Your task to perform on an android device: check google app version Image 0: 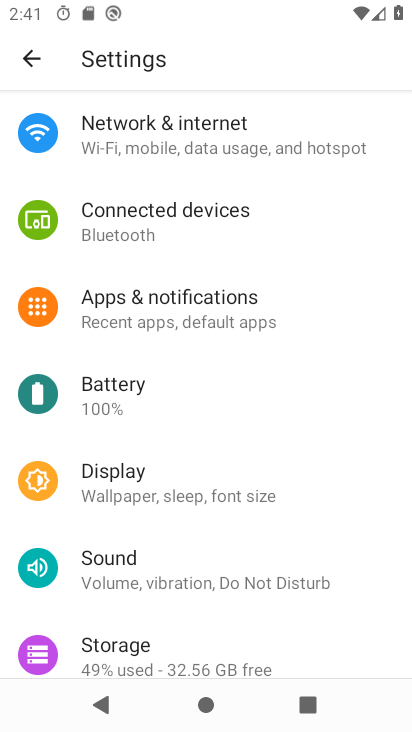
Step 0: press home button
Your task to perform on an android device: check google app version Image 1: 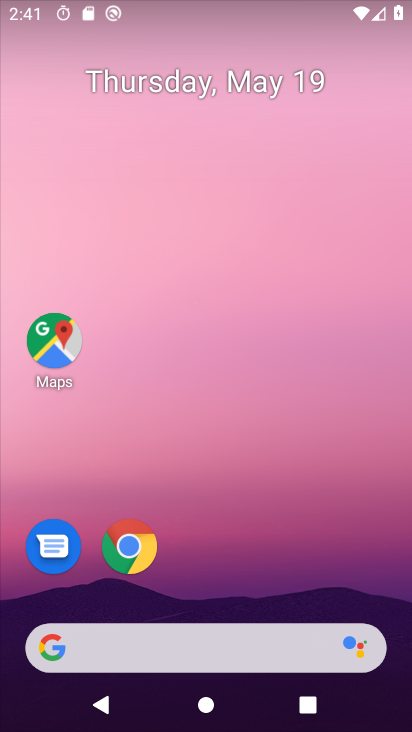
Step 1: drag from (221, 576) to (248, 0)
Your task to perform on an android device: check google app version Image 2: 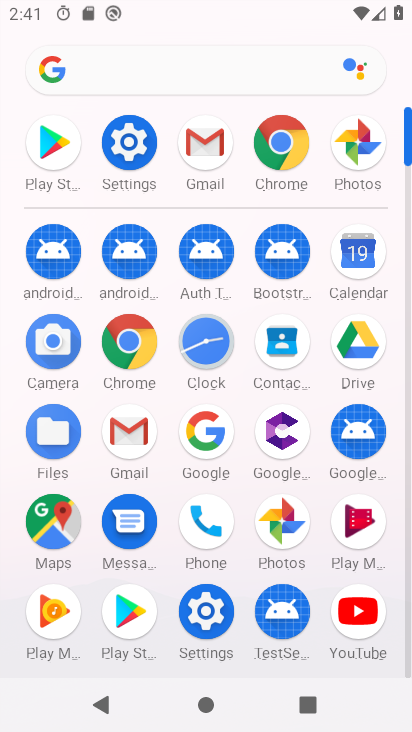
Step 2: click (204, 426)
Your task to perform on an android device: check google app version Image 3: 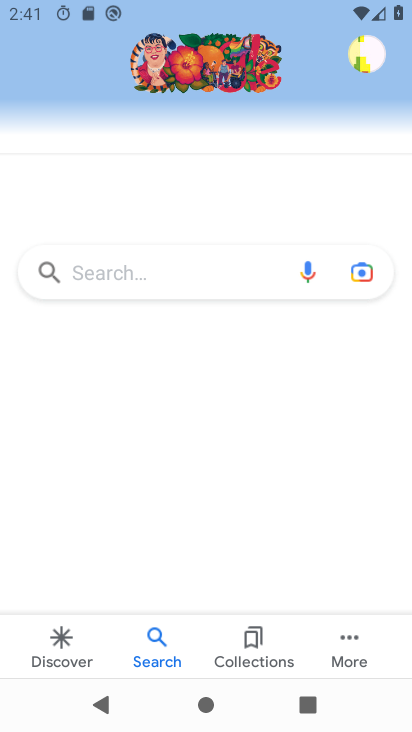
Step 3: click (354, 631)
Your task to perform on an android device: check google app version Image 4: 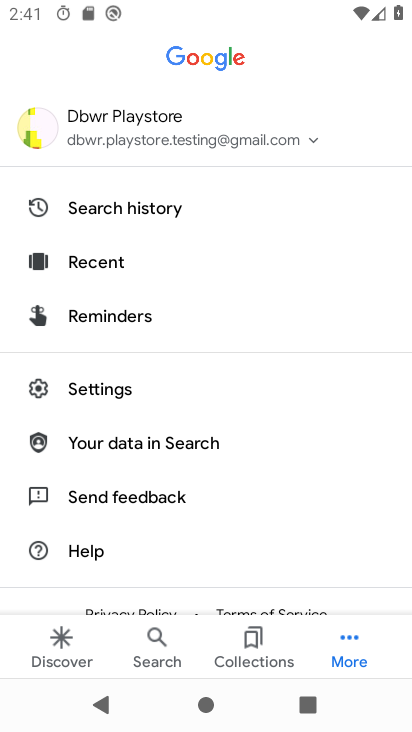
Step 4: click (138, 387)
Your task to perform on an android device: check google app version Image 5: 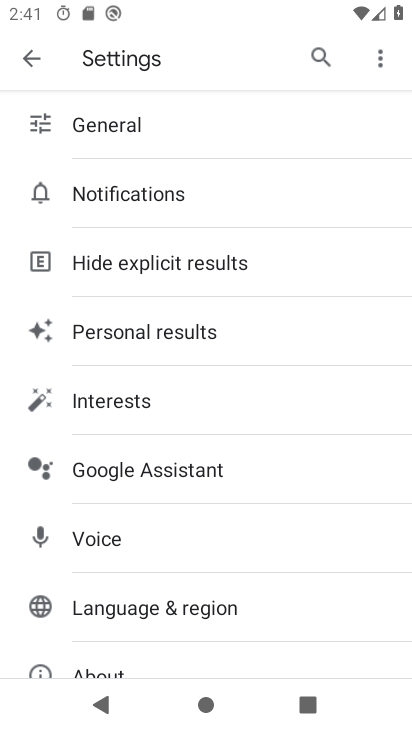
Step 5: drag from (188, 590) to (207, 150)
Your task to perform on an android device: check google app version Image 6: 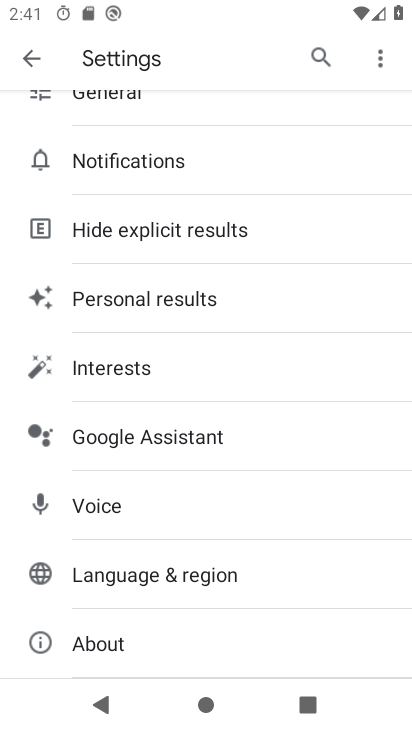
Step 6: click (151, 643)
Your task to perform on an android device: check google app version Image 7: 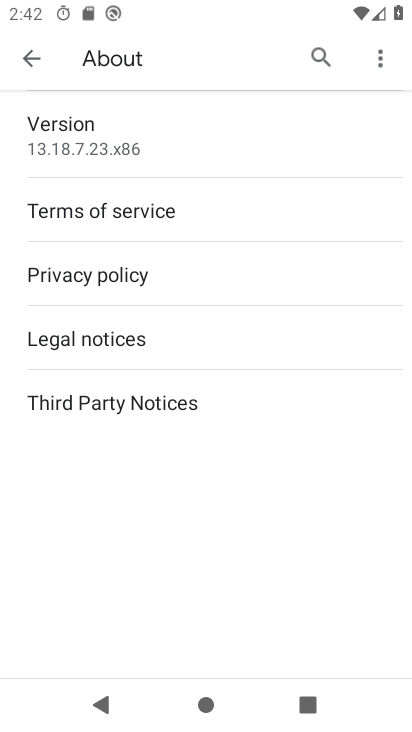
Step 7: task complete